Your task to perform on an android device: Open internet settings Image 0: 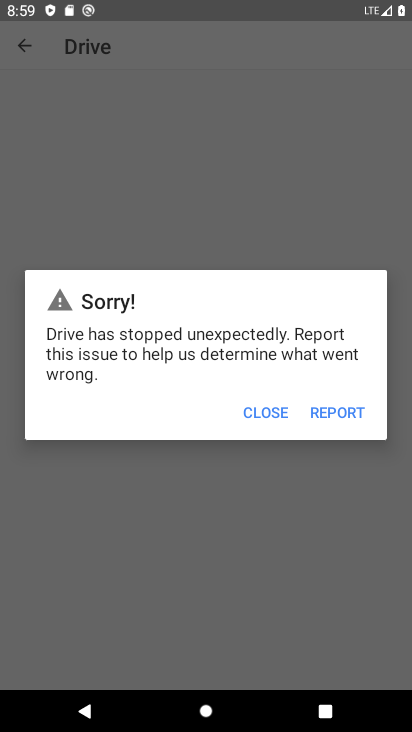
Step 0: press home button
Your task to perform on an android device: Open internet settings Image 1: 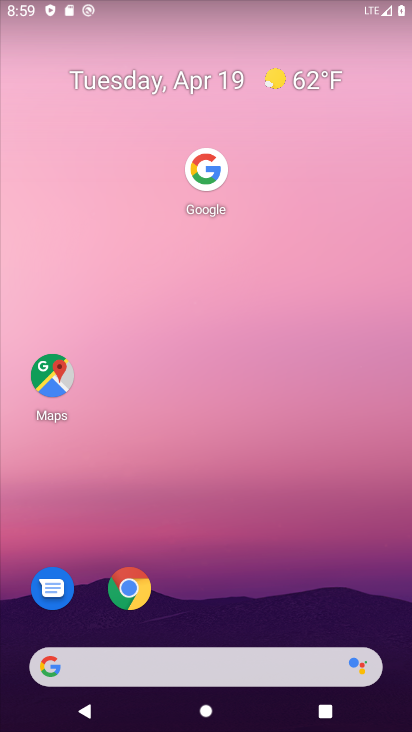
Step 1: drag from (253, 621) to (196, 5)
Your task to perform on an android device: Open internet settings Image 2: 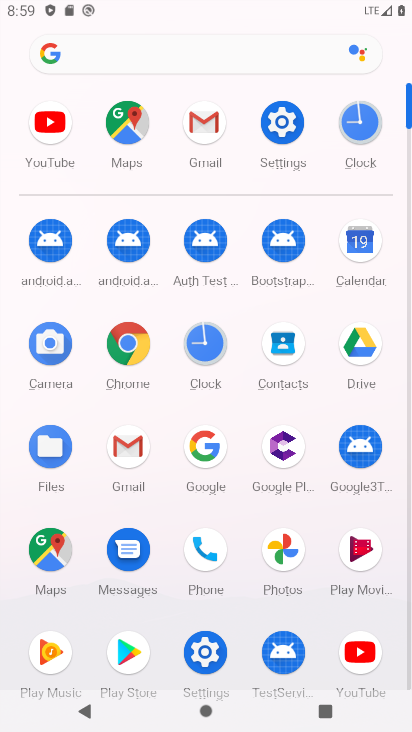
Step 2: click (284, 126)
Your task to perform on an android device: Open internet settings Image 3: 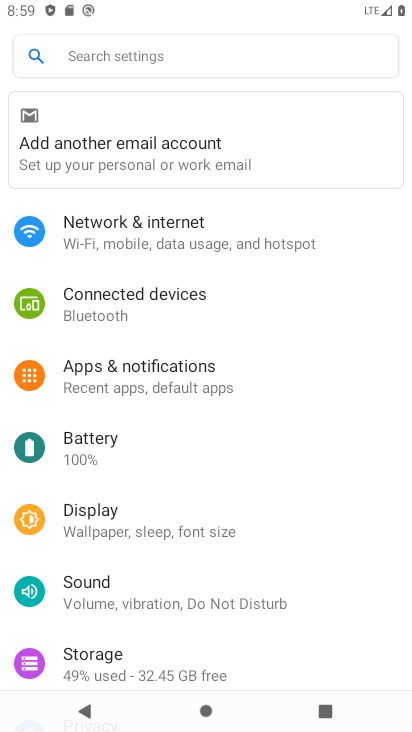
Step 3: click (137, 227)
Your task to perform on an android device: Open internet settings Image 4: 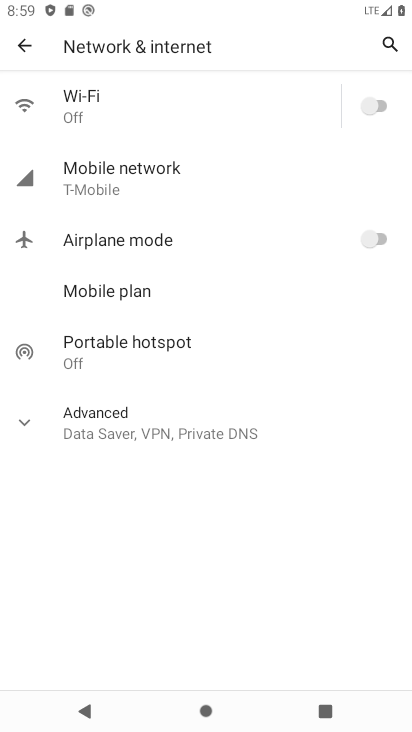
Step 4: click (121, 175)
Your task to perform on an android device: Open internet settings Image 5: 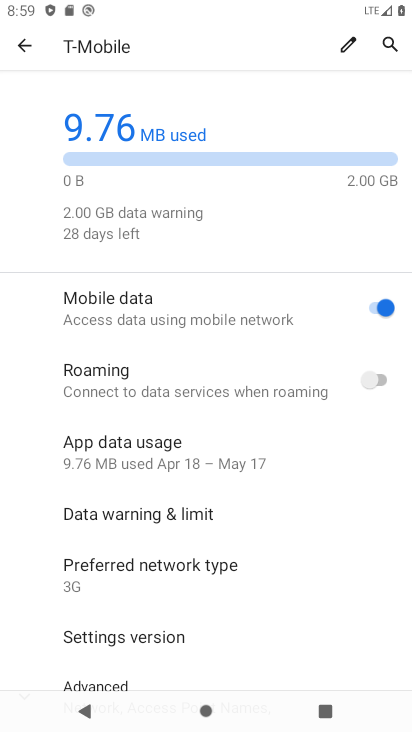
Step 5: task complete